Your task to perform on an android device: change notifications settings Image 0: 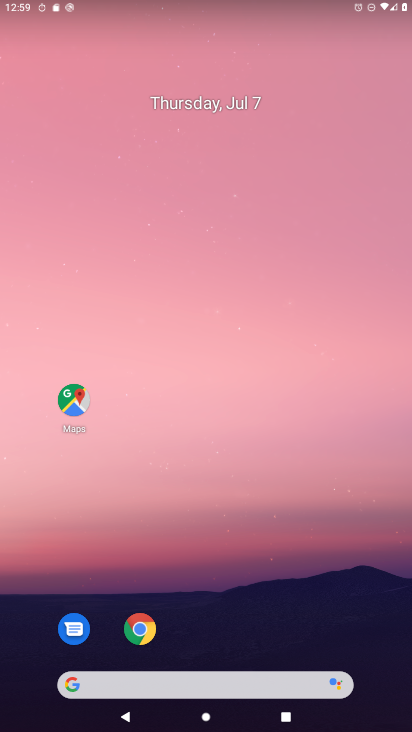
Step 0: drag from (213, 624) to (211, 145)
Your task to perform on an android device: change notifications settings Image 1: 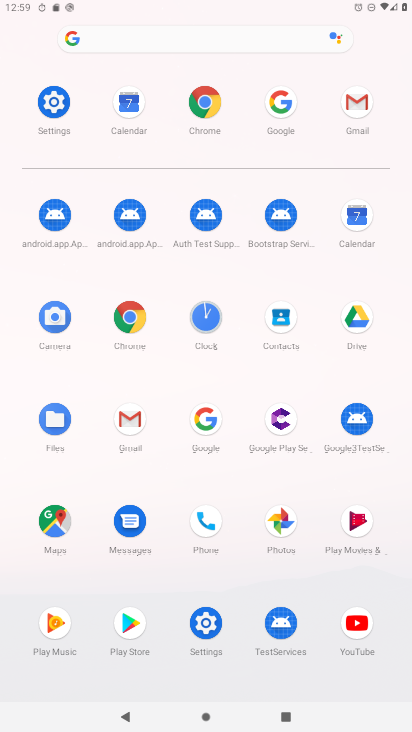
Step 1: click (63, 103)
Your task to perform on an android device: change notifications settings Image 2: 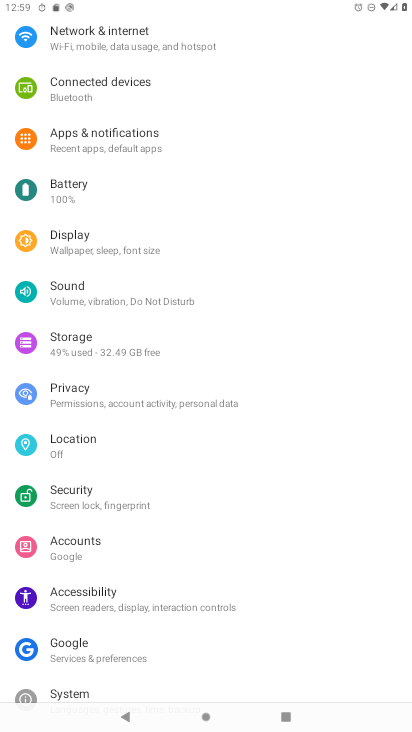
Step 2: click (175, 131)
Your task to perform on an android device: change notifications settings Image 3: 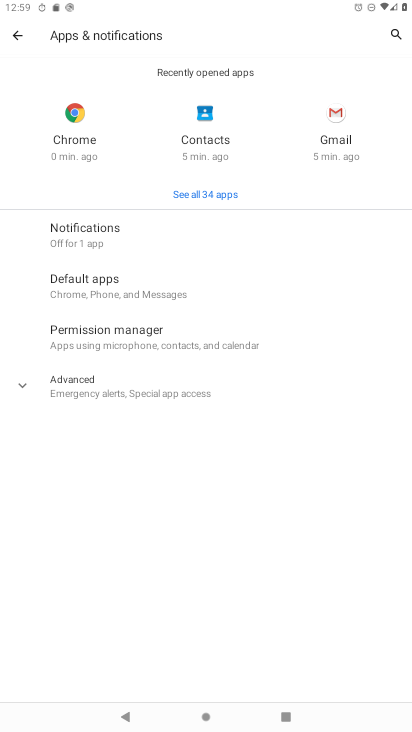
Step 3: click (97, 237)
Your task to perform on an android device: change notifications settings Image 4: 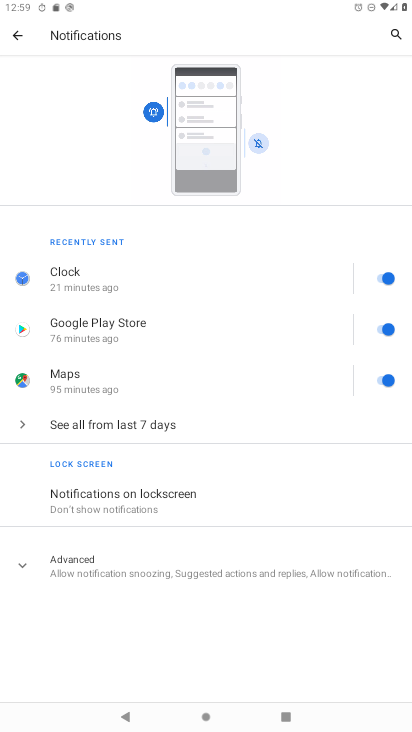
Step 4: click (168, 509)
Your task to perform on an android device: change notifications settings Image 5: 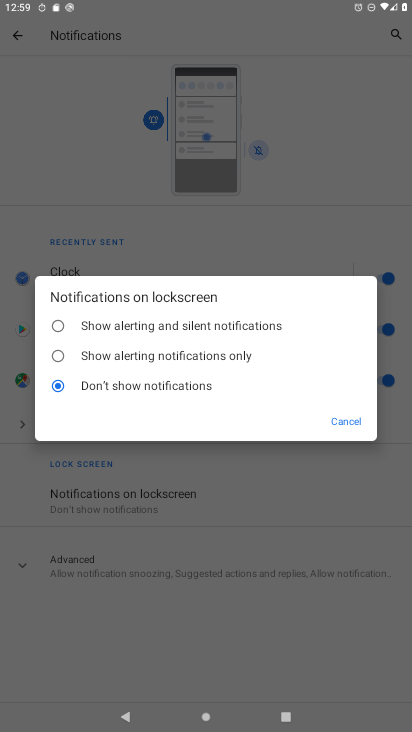
Step 5: click (95, 329)
Your task to perform on an android device: change notifications settings Image 6: 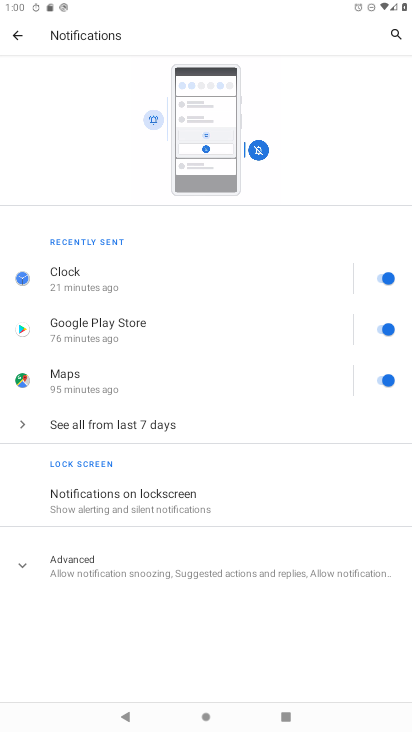
Step 6: task complete